Your task to perform on an android device: turn on javascript in the chrome app Image 0: 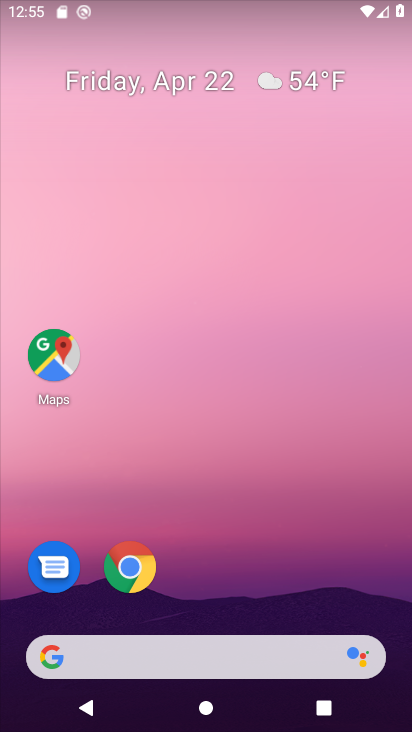
Step 0: drag from (225, 511) to (278, 178)
Your task to perform on an android device: turn on javascript in the chrome app Image 1: 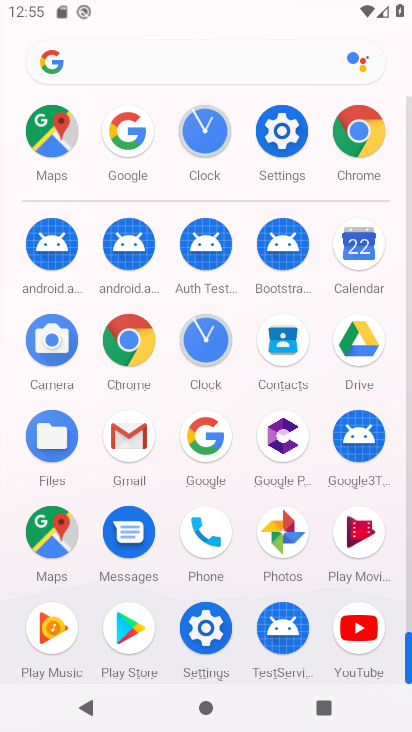
Step 1: click (371, 136)
Your task to perform on an android device: turn on javascript in the chrome app Image 2: 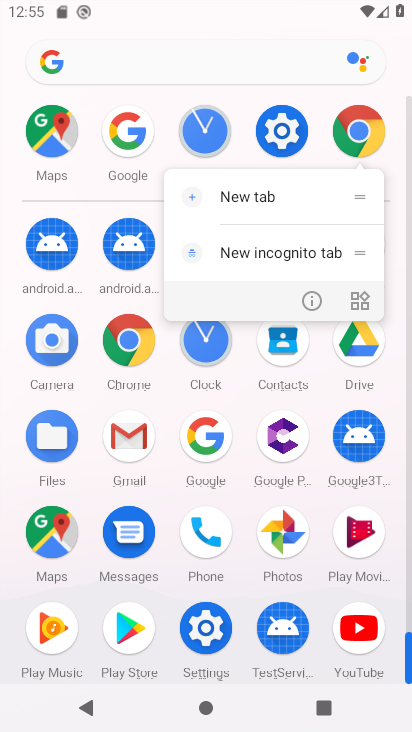
Step 2: click (370, 140)
Your task to perform on an android device: turn on javascript in the chrome app Image 3: 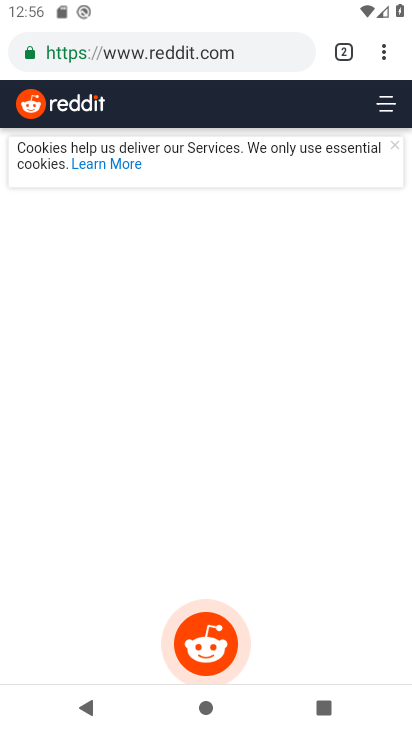
Step 3: click (394, 52)
Your task to perform on an android device: turn on javascript in the chrome app Image 4: 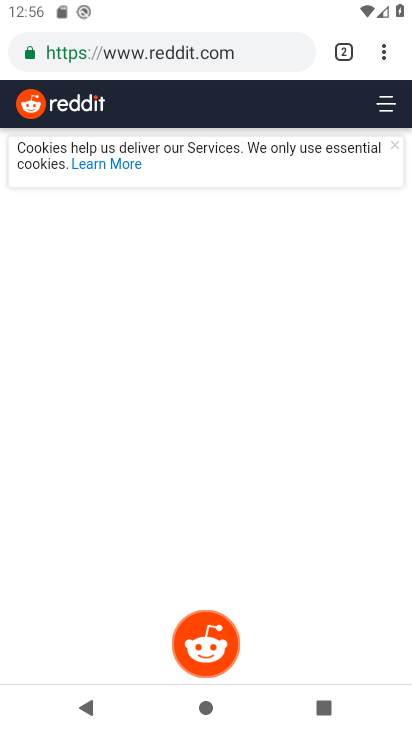
Step 4: click (385, 54)
Your task to perform on an android device: turn on javascript in the chrome app Image 5: 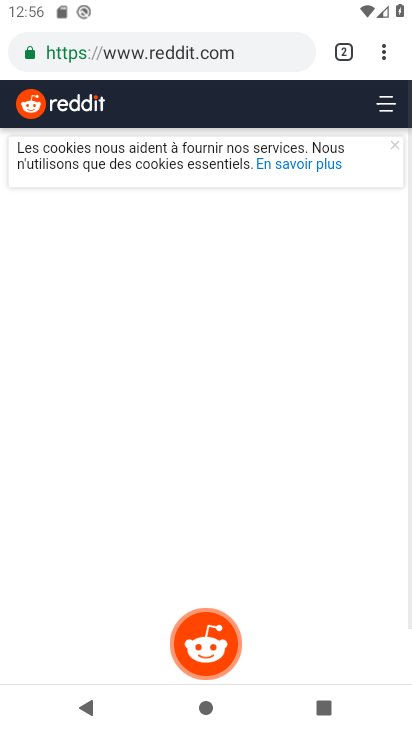
Step 5: click (385, 54)
Your task to perform on an android device: turn on javascript in the chrome app Image 6: 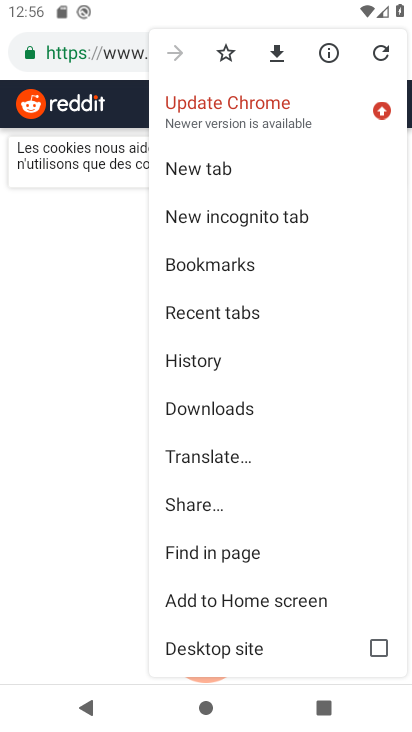
Step 6: drag from (256, 557) to (264, 332)
Your task to perform on an android device: turn on javascript in the chrome app Image 7: 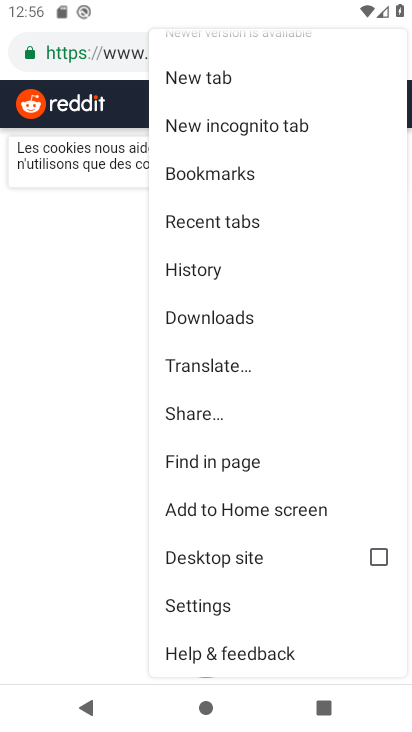
Step 7: click (240, 608)
Your task to perform on an android device: turn on javascript in the chrome app Image 8: 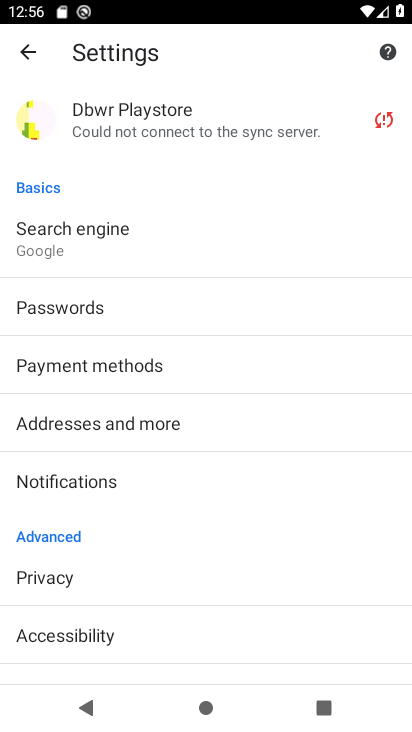
Step 8: drag from (240, 607) to (215, 376)
Your task to perform on an android device: turn on javascript in the chrome app Image 9: 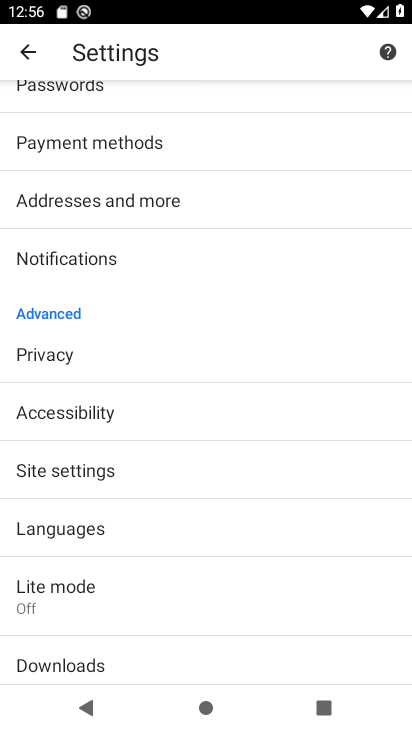
Step 9: click (177, 478)
Your task to perform on an android device: turn on javascript in the chrome app Image 10: 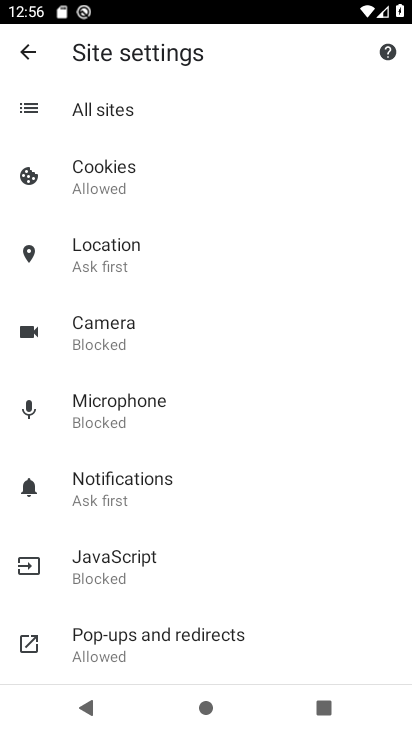
Step 10: click (174, 573)
Your task to perform on an android device: turn on javascript in the chrome app Image 11: 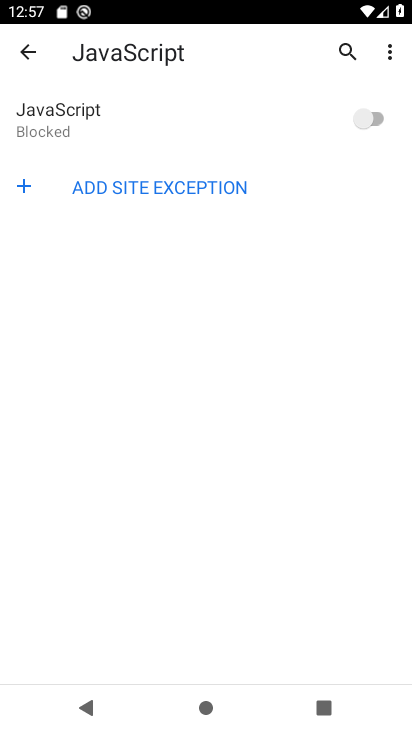
Step 11: click (368, 120)
Your task to perform on an android device: turn on javascript in the chrome app Image 12: 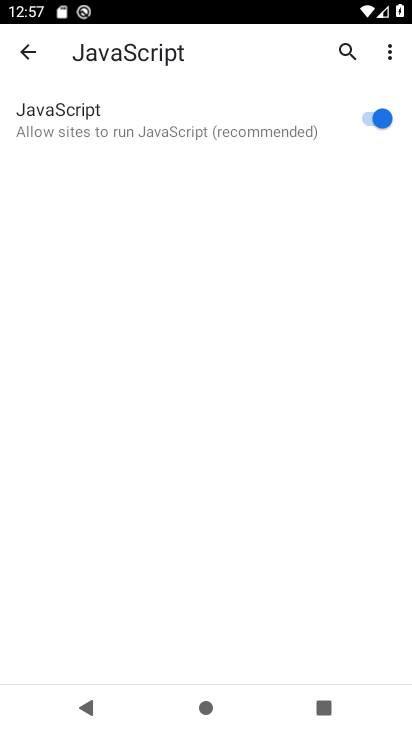
Step 12: task complete